Your task to perform on an android device: install app "Microsoft Excel" Image 0: 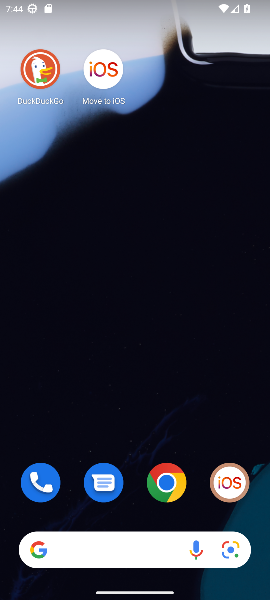
Step 0: drag from (120, 520) to (166, 173)
Your task to perform on an android device: install app "Microsoft Excel" Image 1: 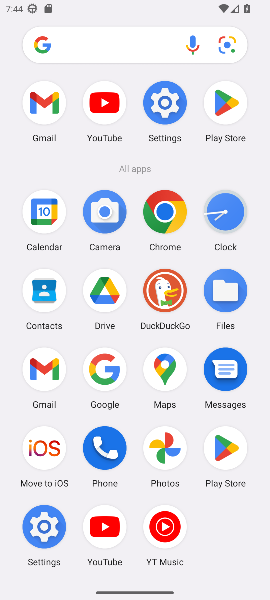
Step 1: click (226, 460)
Your task to perform on an android device: install app "Microsoft Excel" Image 2: 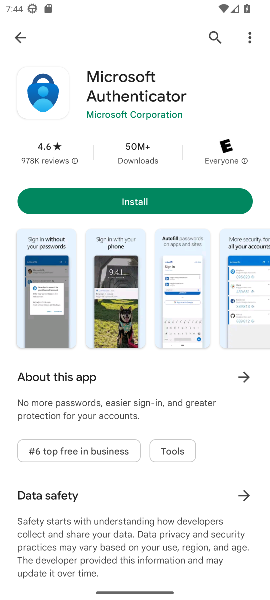
Step 2: click (21, 39)
Your task to perform on an android device: install app "Microsoft Excel" Image 3: 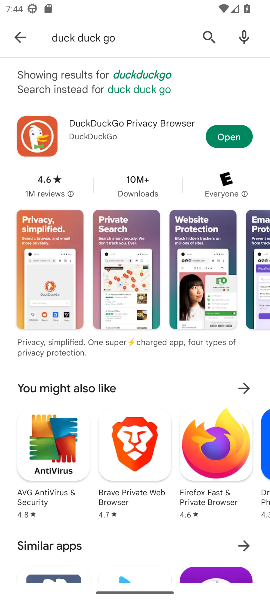
Step 3: click (99, 37)
Your task to perform on an android device: install app "Microsoft Excel" Image 4: 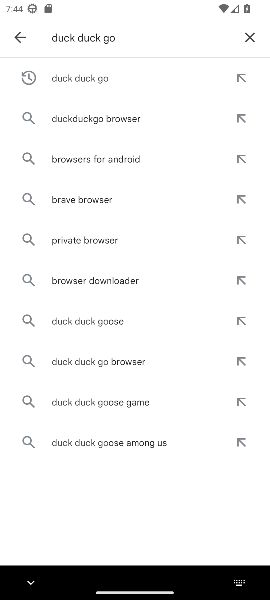
Step 4: click (245, 36)
Your task to perform on an android device: install app "Microsoft Excel" Image 5: 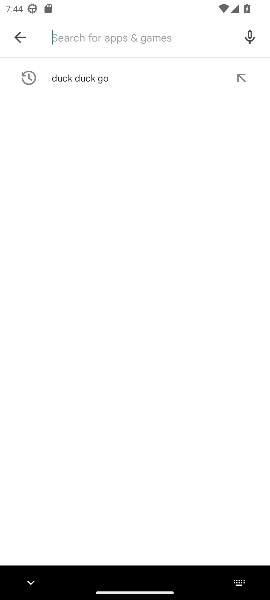
Step 5: type "microsoft excel"
Your task to perform on an android device: install app "Microsoft Excel" Image 6: 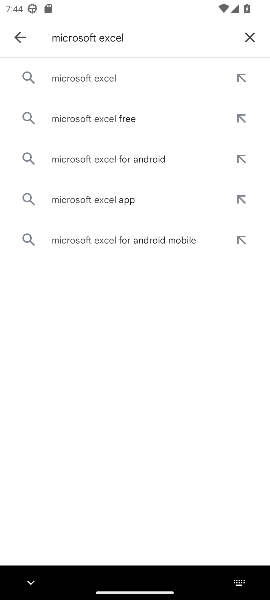
Step 6: click (91, 75)
Your task to perform on an android device: install app "Microsoft Excel" Image 7: 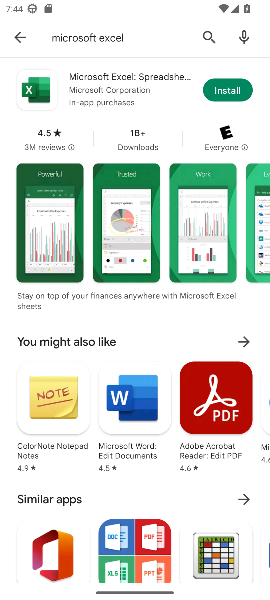
Step 7: click (235, 87)
Your task to perform on an android device: install app "Microsoft Excel" Image 8: 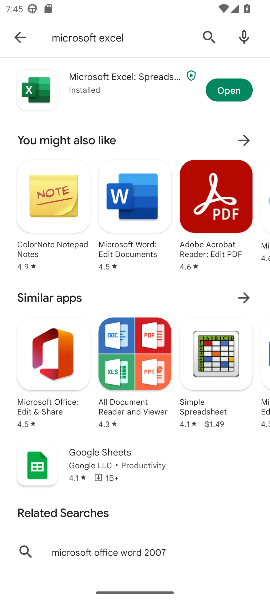
Step 8: task complete